Your task to perform on an android device: Open Wikipedia Image 0: 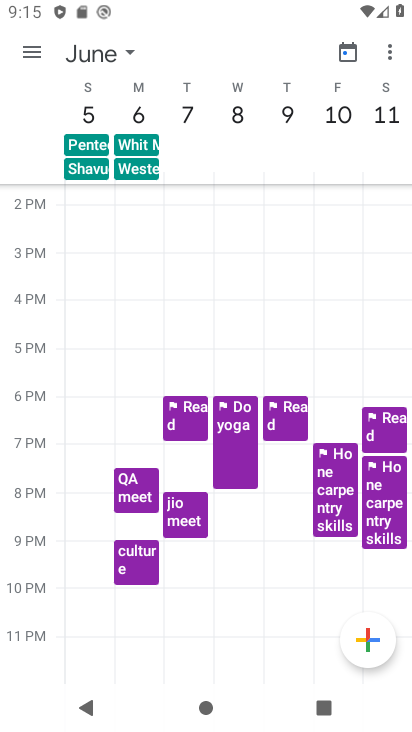
Step 0: press home button
Your task to perform on an android device: Open Wikipedia Image 1: 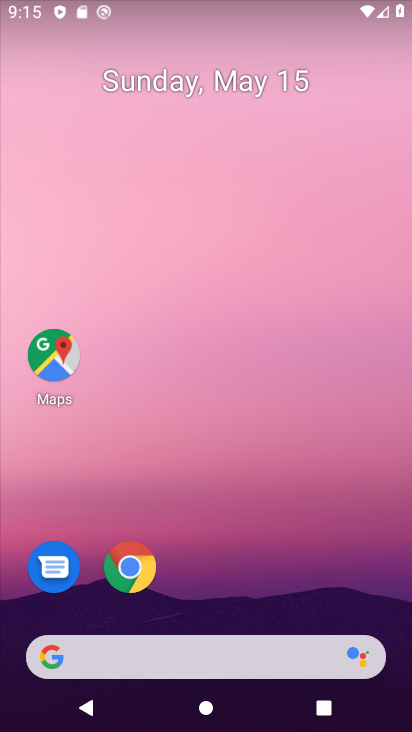
Step 1: click (137, 571)
Your task to perform on an android device: Open Wikipedia Image 2: 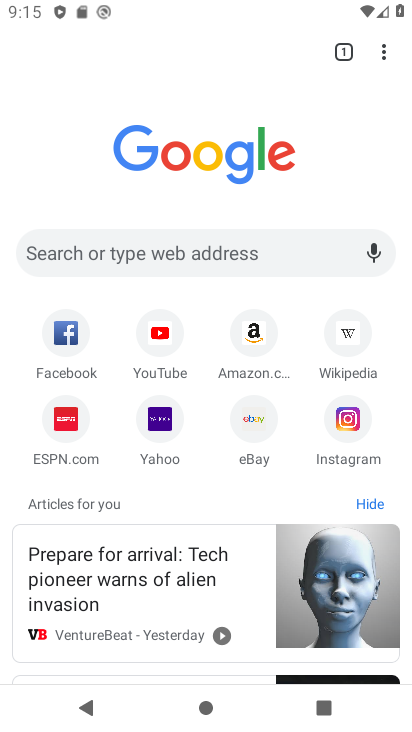
Step 2: click (355, 329)
Your task to perform on an android device: Open Wikipedia Image 3: 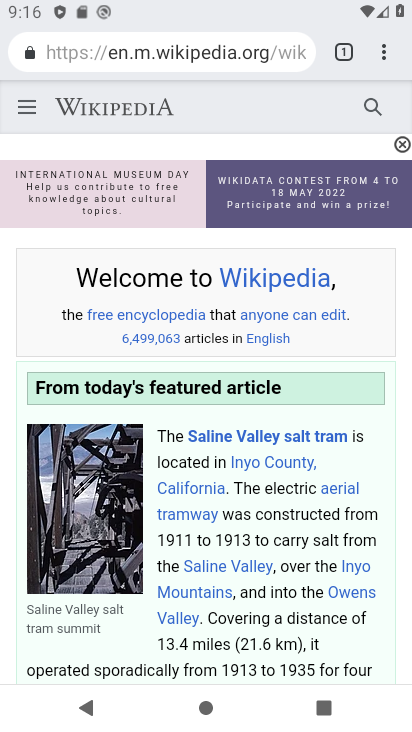
Step 3: task complete